Your task to perform on an android device: Go to Reddit.com Image 0: 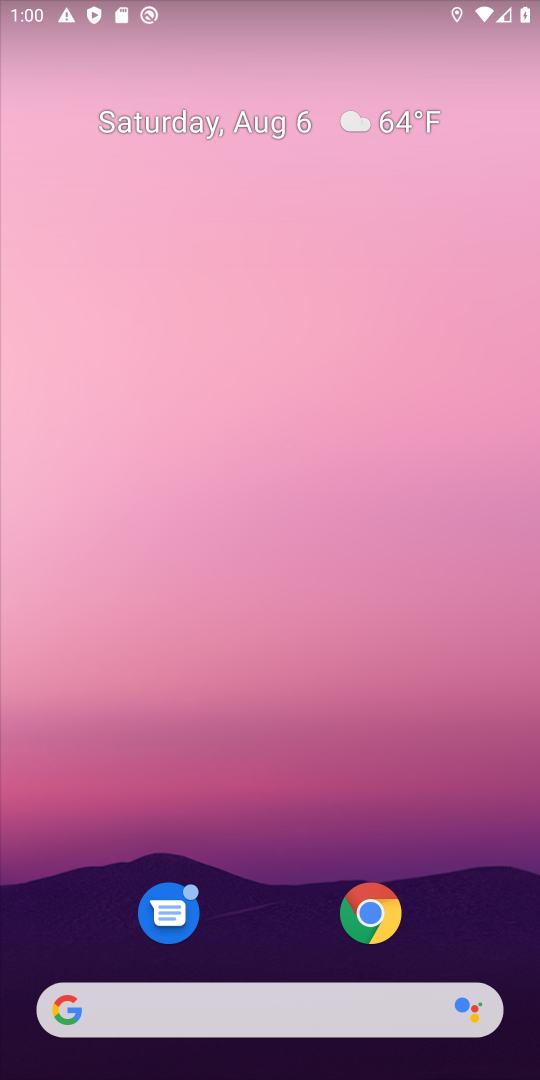
Step 0: drag from (265, 848) to (337, 195)
Your task to perform on an android device: Go to Reddit.com Image 1: 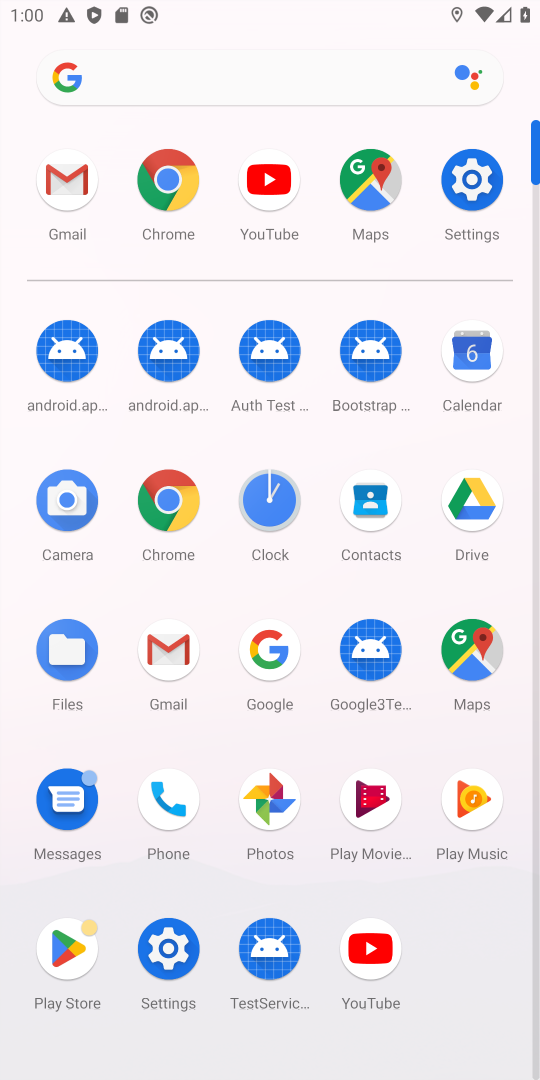
Step 1: click (175, 514)
Your task to perform on an android device: Go to Reddit.com Image 2: 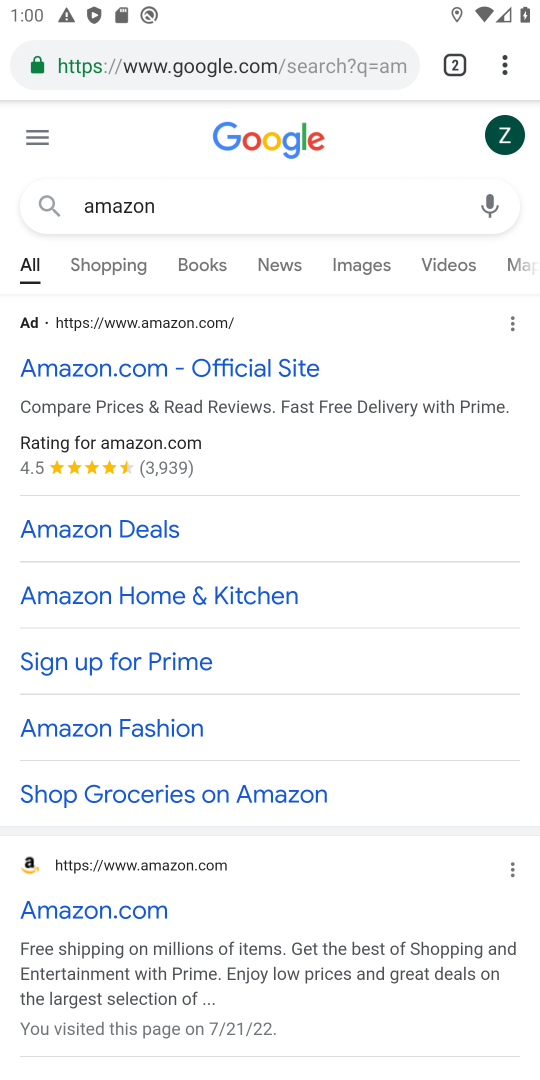
Step 2: click (320, 57)
Your task to perform on an android device: Go to Reddit.com Image 3: 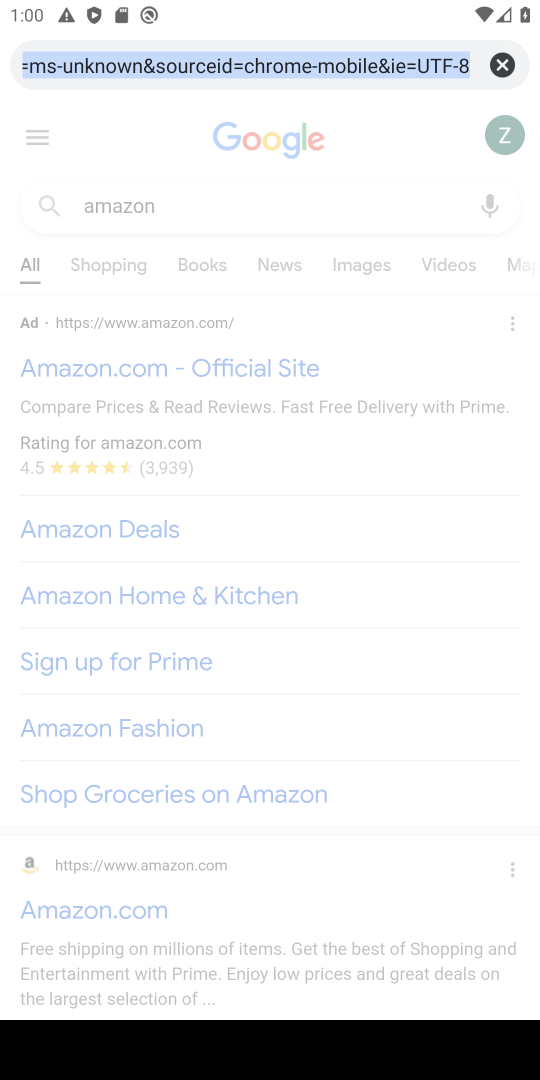
Step 3: type "reddit.com"
Your task to perform on an android device: Go to Reddit.com Image 4: 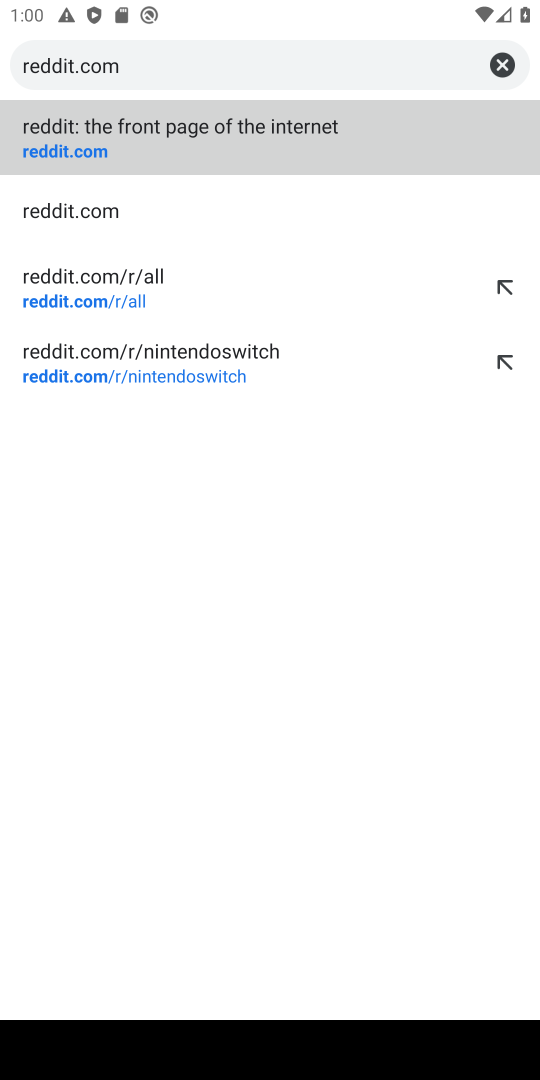
Step 4: click (131, 139)
Your task to perform on an android device: Go to Reddit.com Image 5: 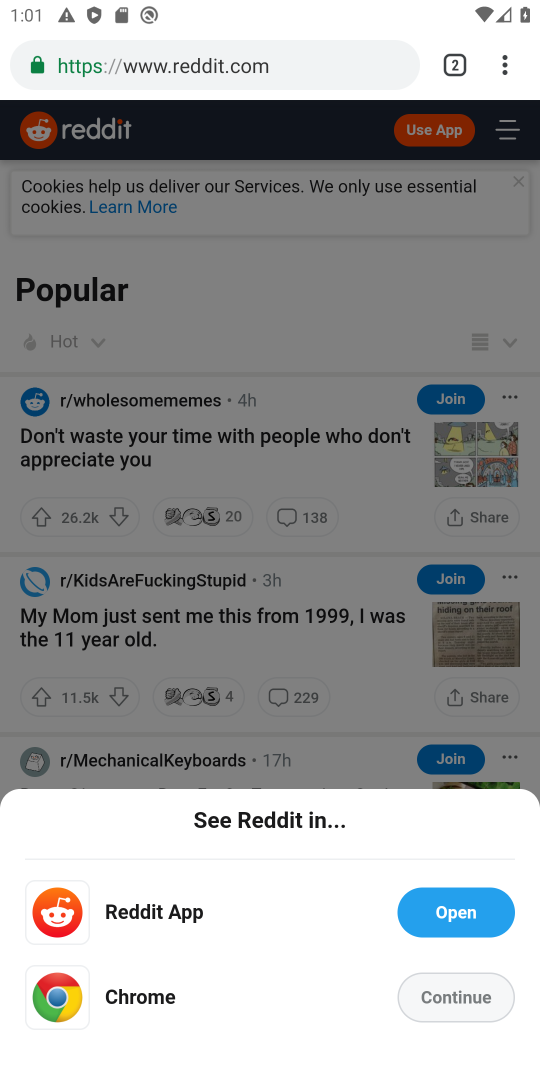
Step 5: task complete